Your task to perform on an android device: What is the recent news? Image 0: 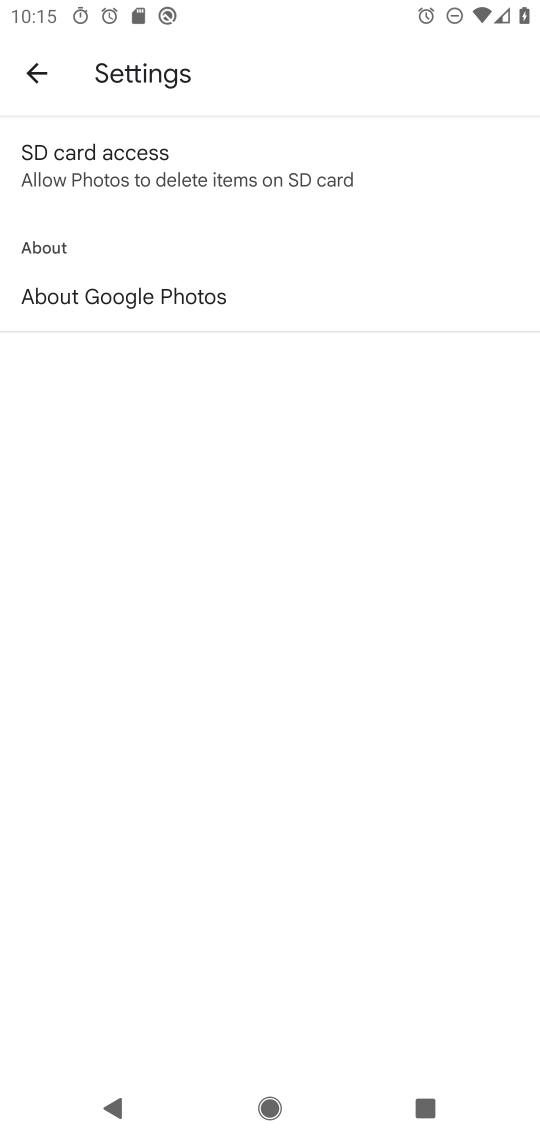
Step 0: press home button
Your task to perform on an android device: What is the recent news? Image 1: 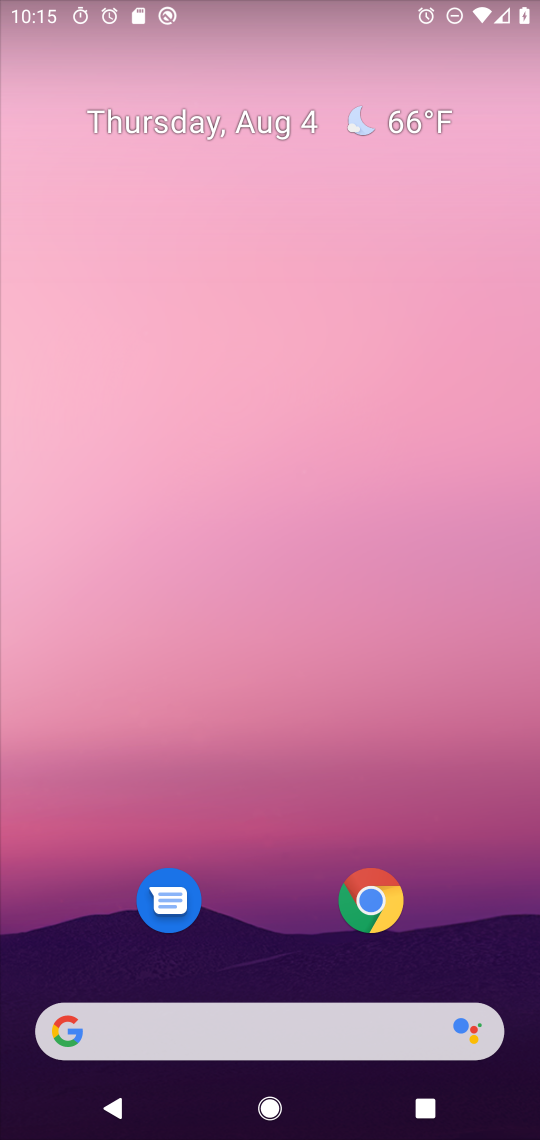
Step 1: drag from (193, 1034) to (218, 173)
Your task to perform on an android device: What is the recent news? Image 2: 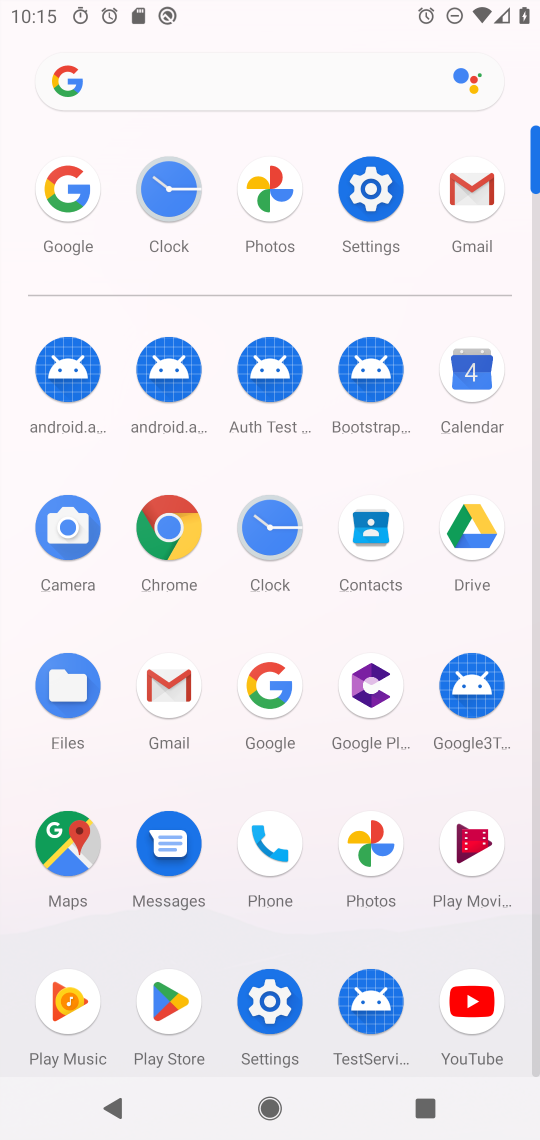
Step 2: click (268, 685)
Your task to perform on an android device: What is the recent news? Image 3: 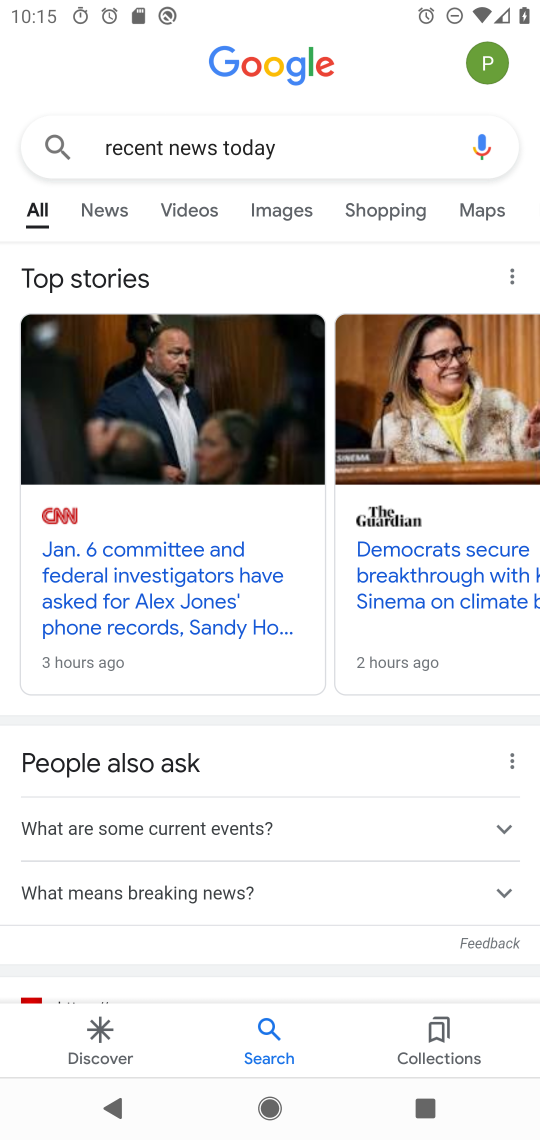
Step 3: click (347, 156)
Your task to perform on an android device: What is the recent news? Image 4: 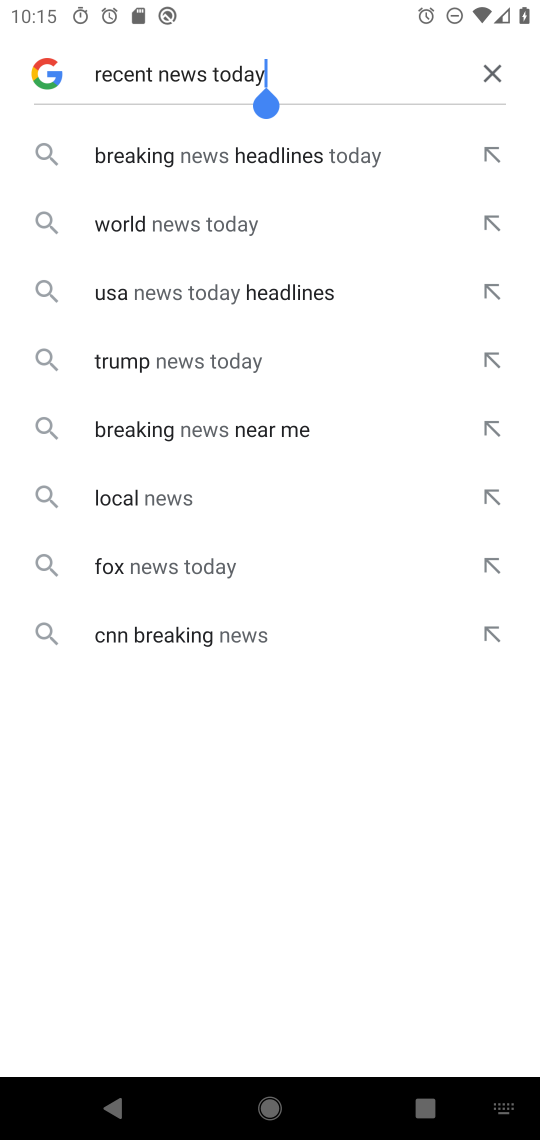
Step 4: click (488, 66)
Your task to perform on an android device: What is the recent news? Image 5: 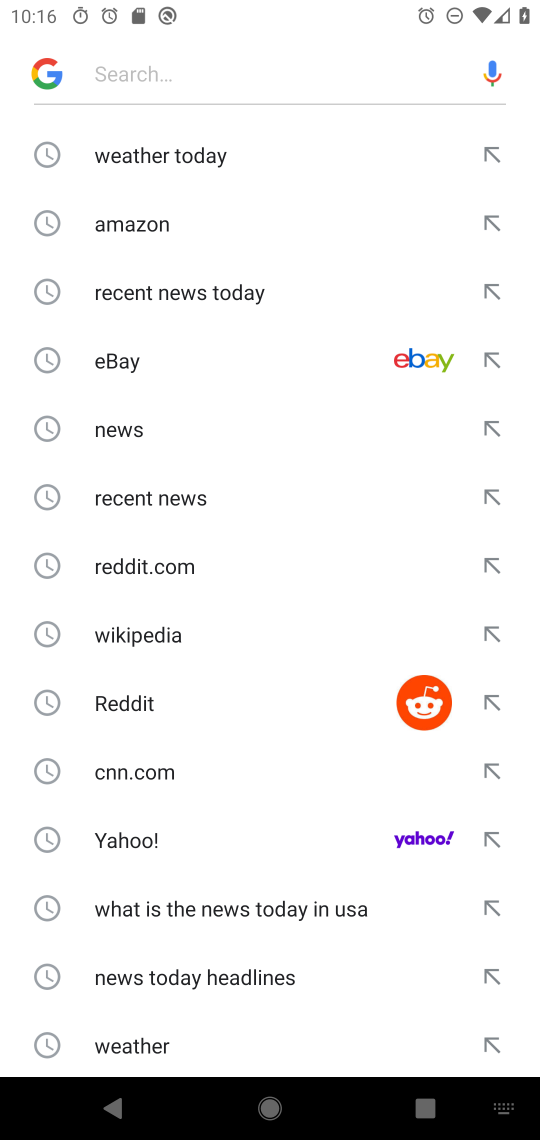
Step 5: type "recent news?"
Your task to perform on an android device: What is the recent news? Image 6: 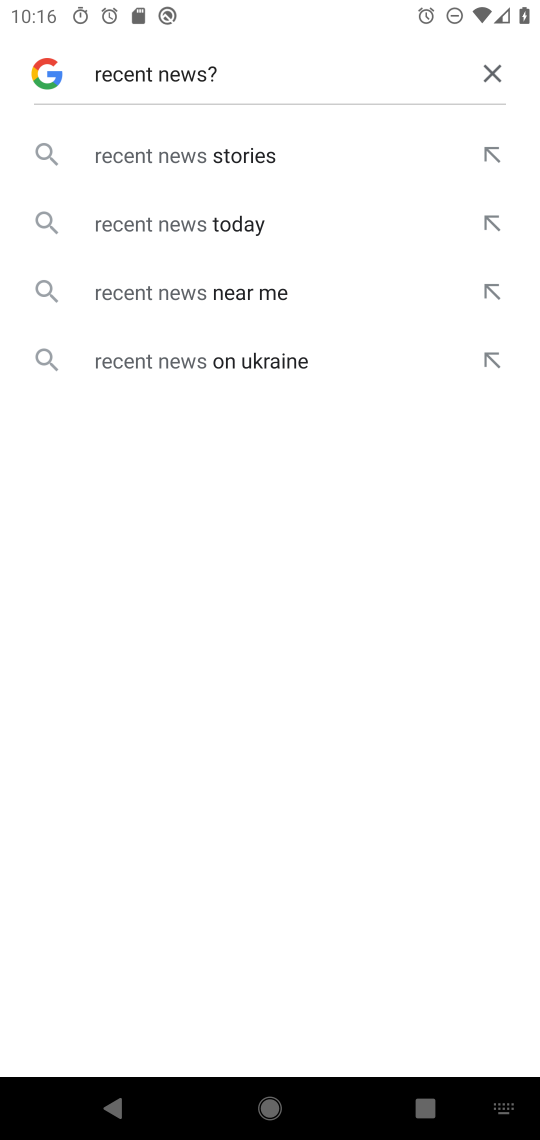
Step 6: click (151, 235)
Your task to perform on an android device: What is the recent news? Image 7: 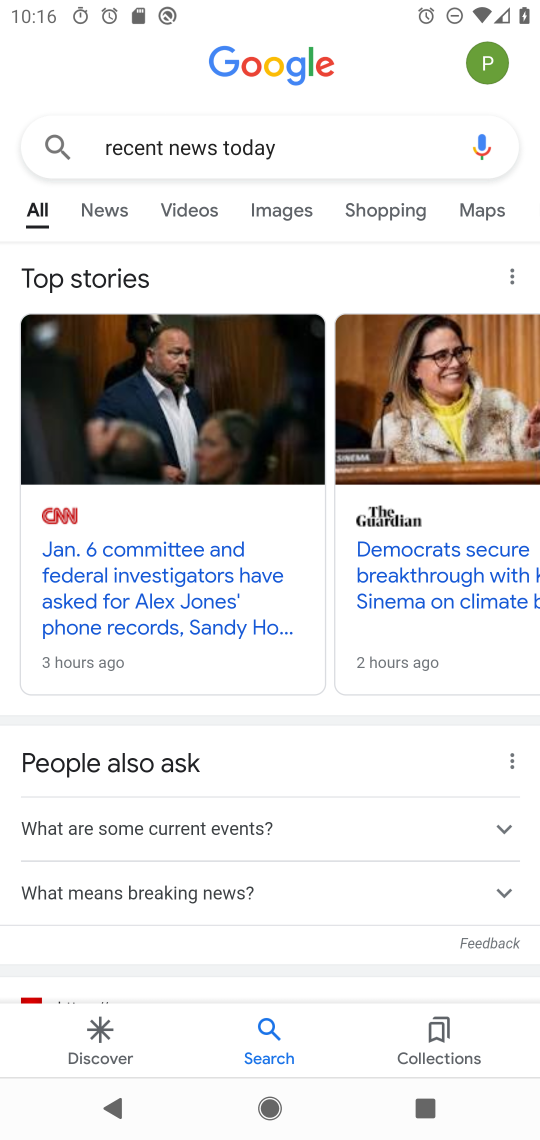
Step 7: click (206, 568)
Your task to perform on an android device: What is the recent news? Image 8: 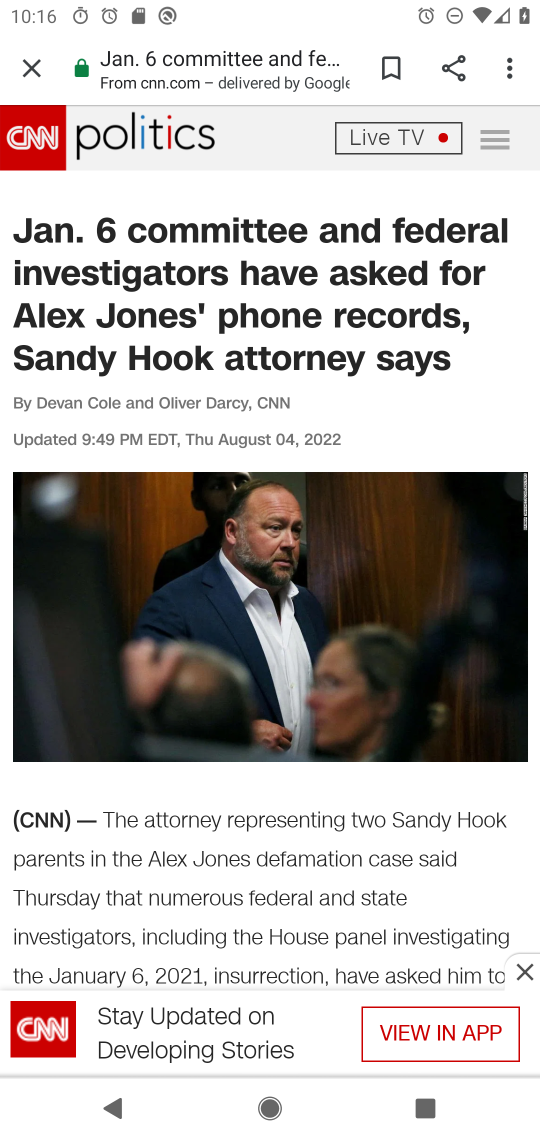
Step 8: task complete